Your task to perform on an android device: turn on sleep mode Image 0: 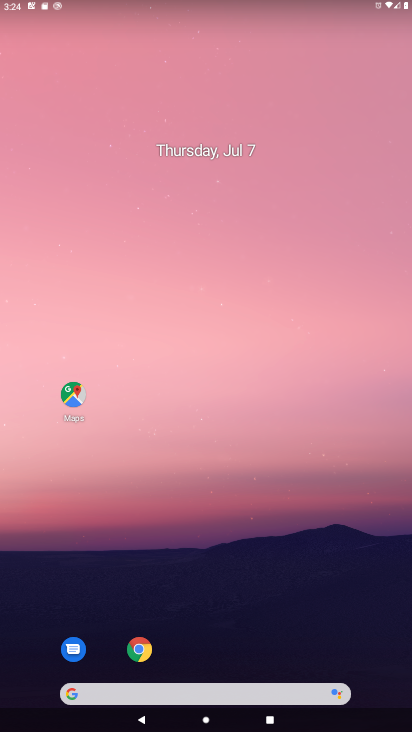
Step 0: drag from (217, 599) to (254, 0)
Your task to perform on an android device: turn on sleep mode Image 1: 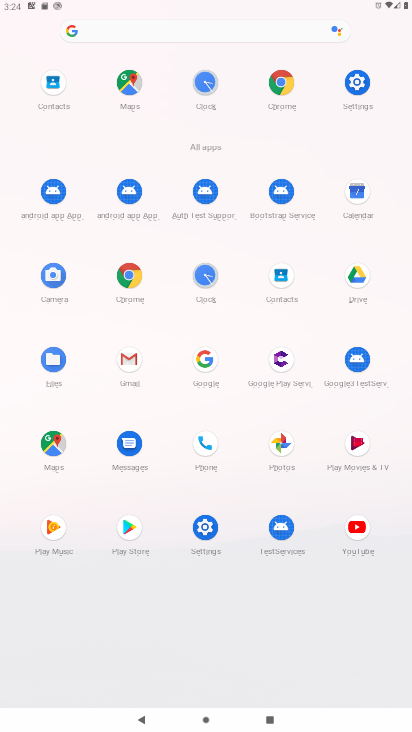
Step 1: click (358, 81)
Your task to perform on an android device: turn on sleep mode Image 2: 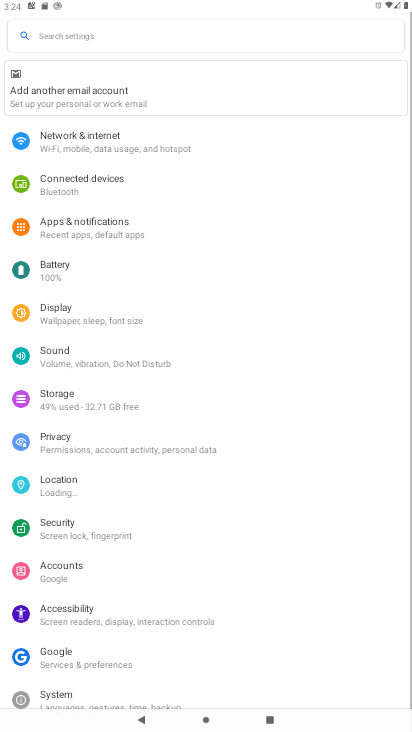
Step 2: click (94, 26)
Your task to perform on an android device: turn on sleep mode Image 3: 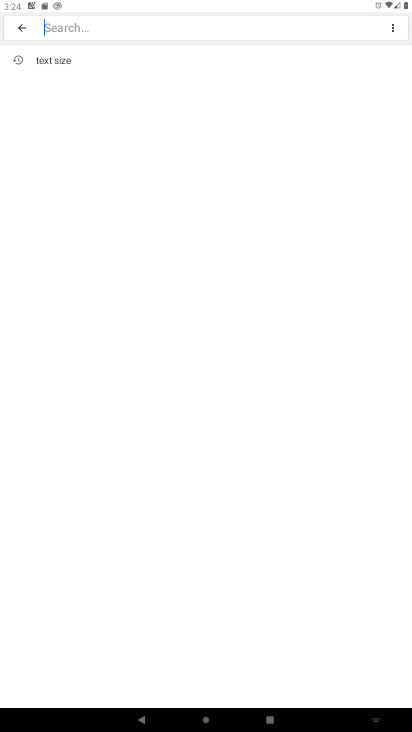
Step 3: type "sleep mode"
Your task to perform on an android device: turn on sleep mode Image 4: 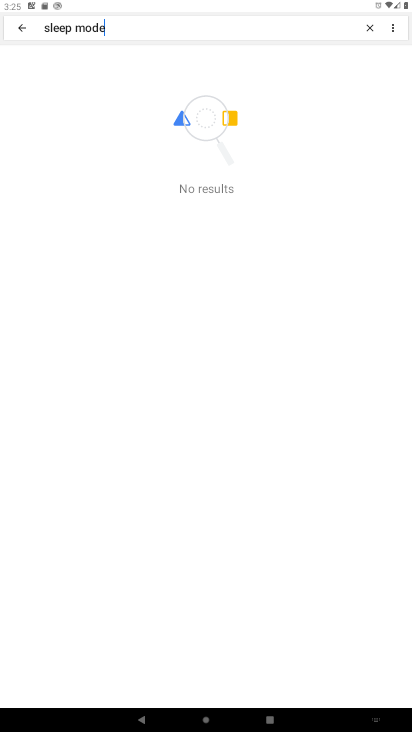
Step 4: task complete